Your task to perform on an android device: Show me recent news Image 0: 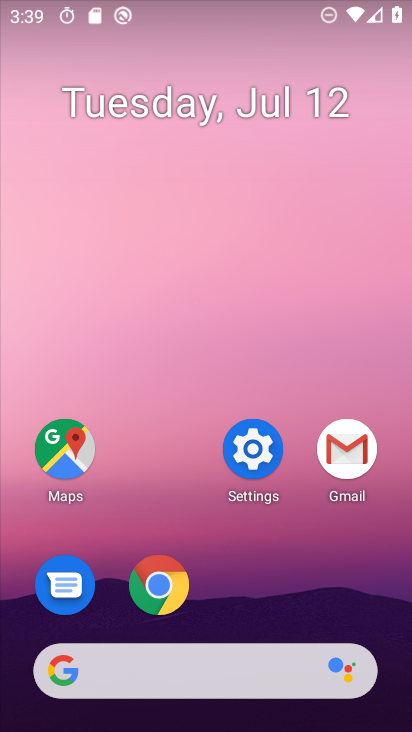
Step 0: drag from (1, 264) to (412, 305)
Your task to perform on an android device: Show me recent news Image 1: 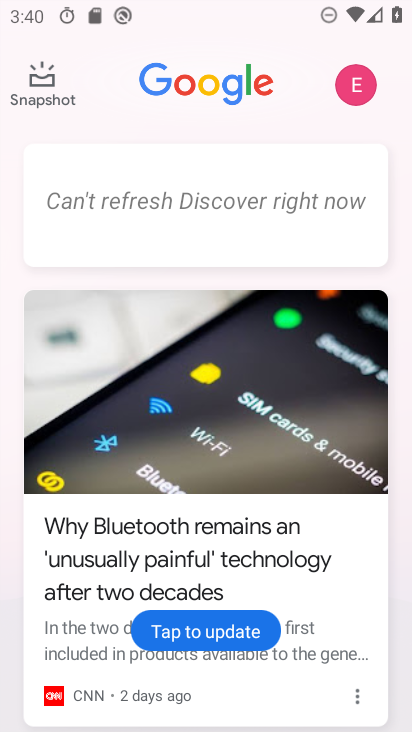
Step 1: task complete